Your task to perform on an android device: Open wifi settings Image 0: 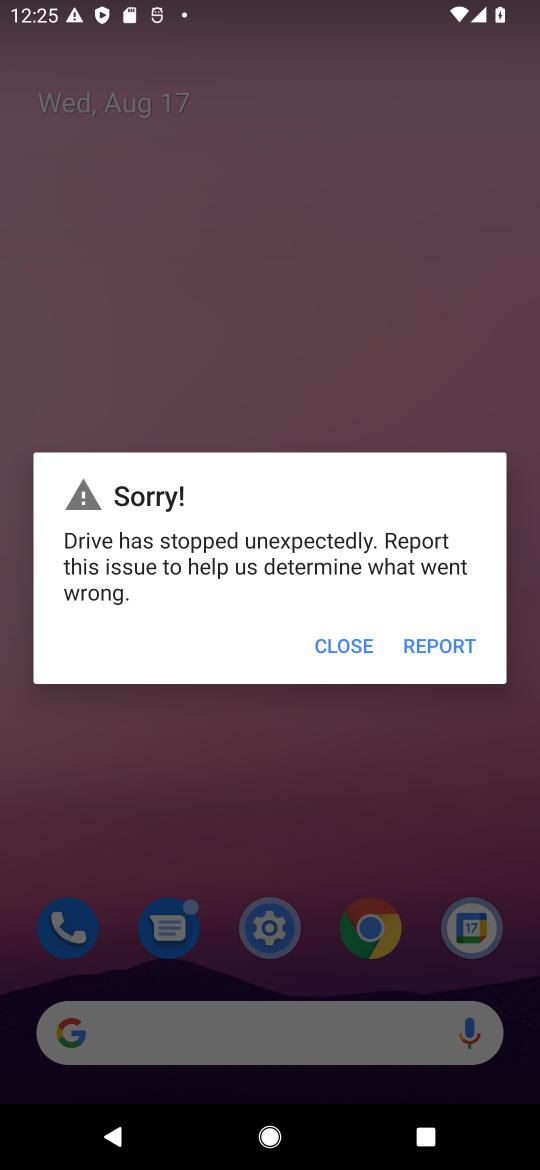
Step 0: click (365, 640)
Your task to perform on an android device: Open wifi settings Image 1: 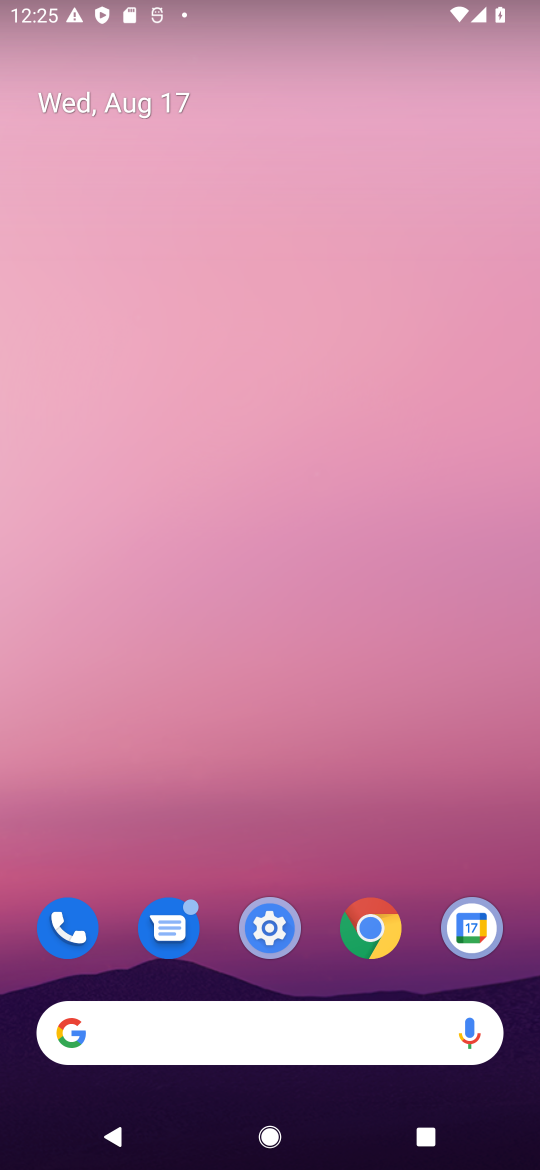
Step 1: click (262, 927)
Your task to perform on an android device: Open wifi settings Image 2: 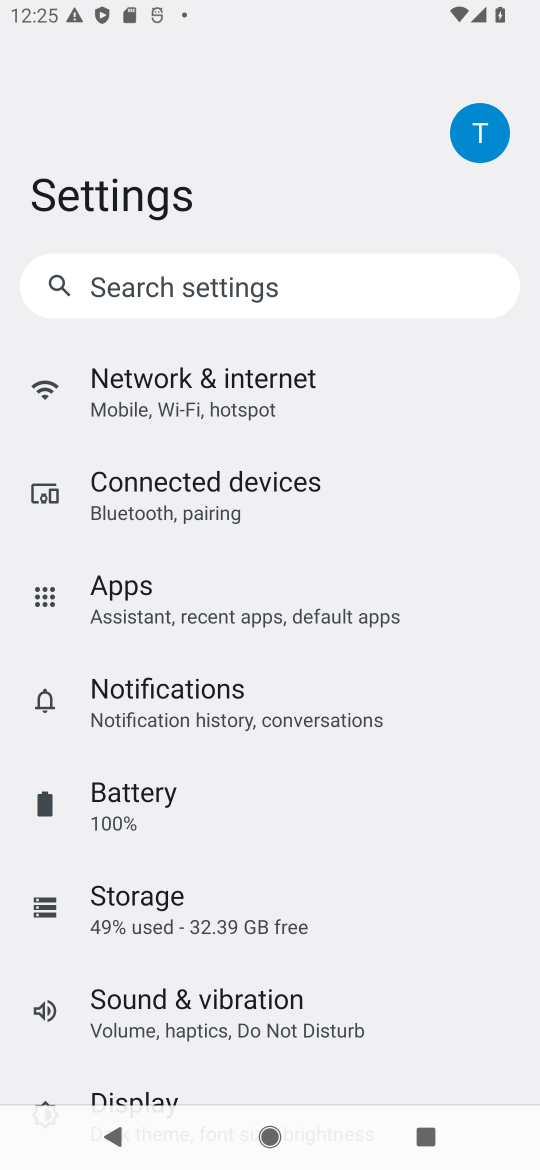
Step 2: click (200, 406)
Your task to perform on an android device: Open wifi settings Image 3: 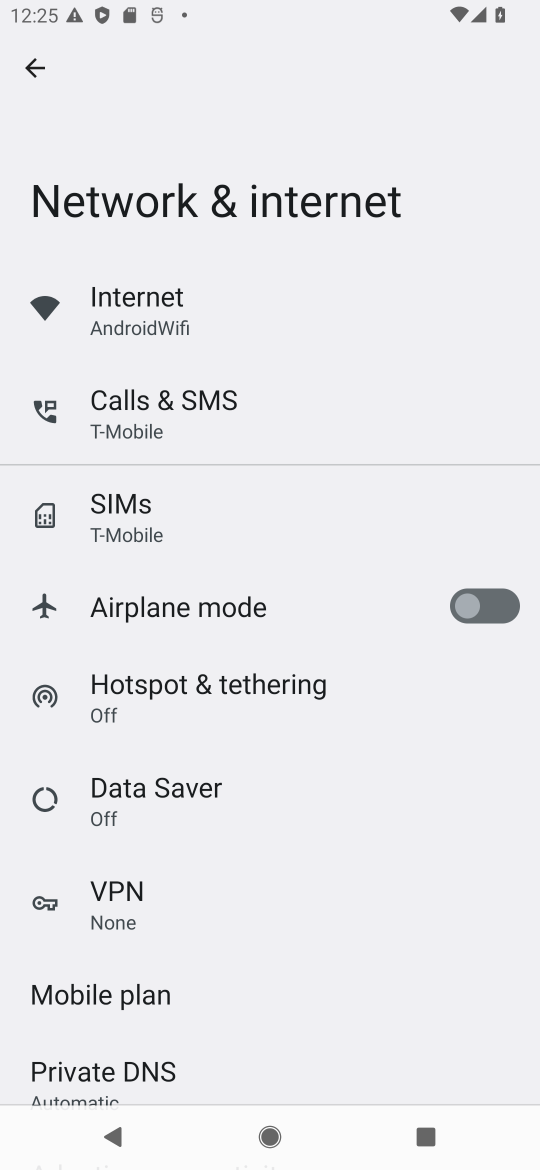
Step 3: click (164, 329)
Your task to perform on an android device: Open wifi settings Image 4: 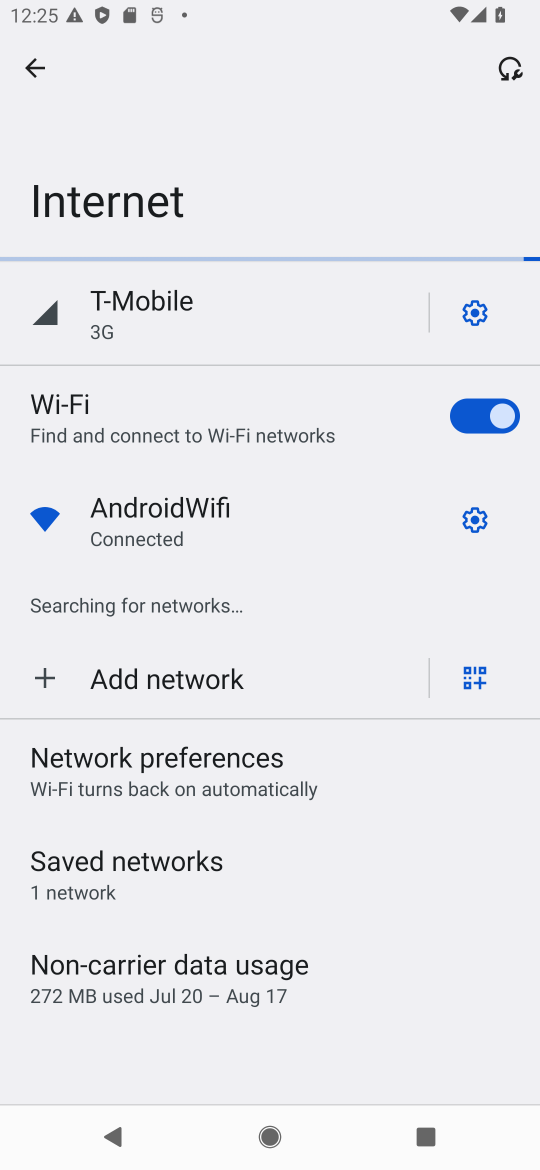
Step 4: task complete